Your task to perform on an android device: add a contact Image 0: 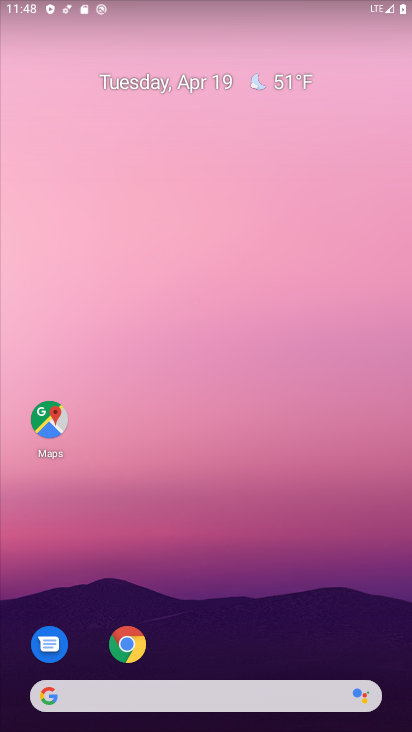
Step 0: drag from (210, 728) to (191, 152)
Your task to perform on an android device: add a contact Image 1: 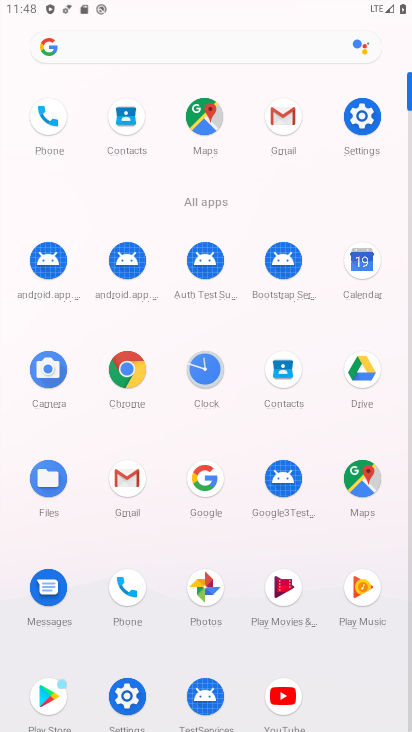
Step 1: click (284, 369)
Your task to perform on an android device: add a contact Image 2: 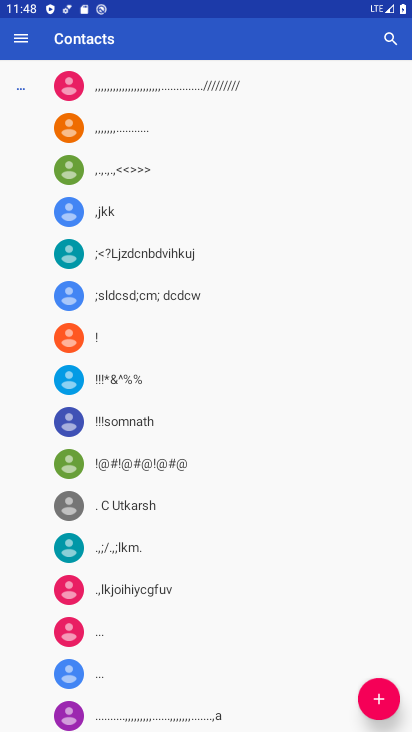
Step 2: click (379, 697)
Your task to perform on an android device: add a contact Image 3: 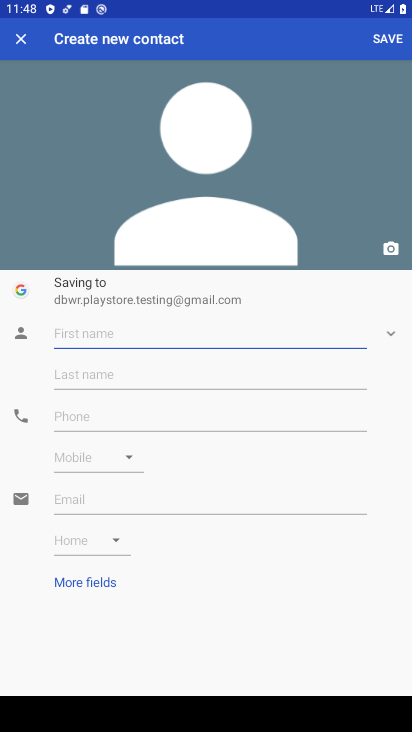
Step 3: type "emburaan"
Your task to perform on an android device: add a contact Image 4: 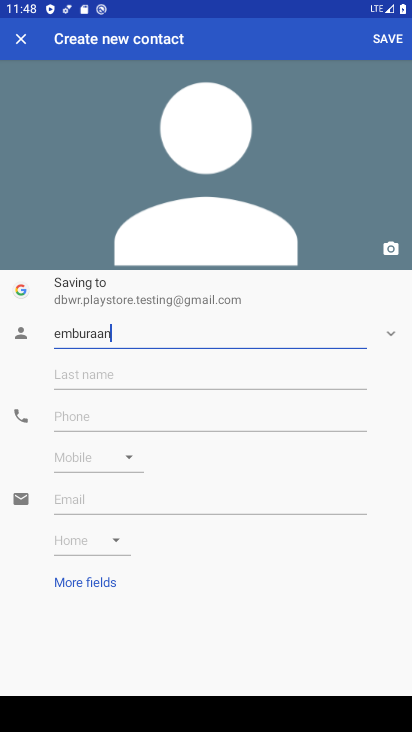
Step 4: click (100, 412)
Your task to perform on an android device: add a contact Image 5: 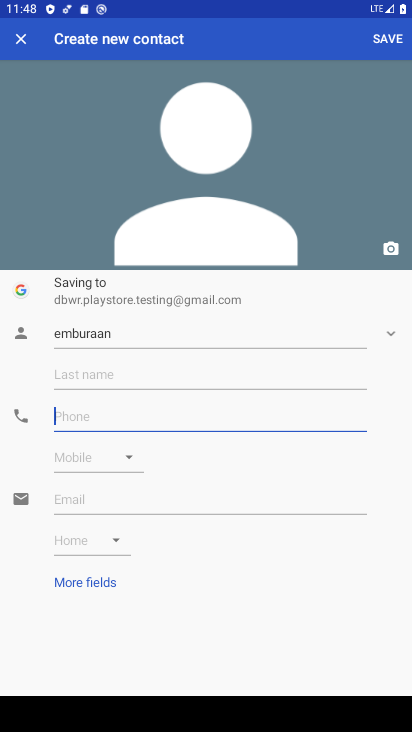
Step 5: type "9876543"
Your task to perform on an android device: add a contact Image 6: 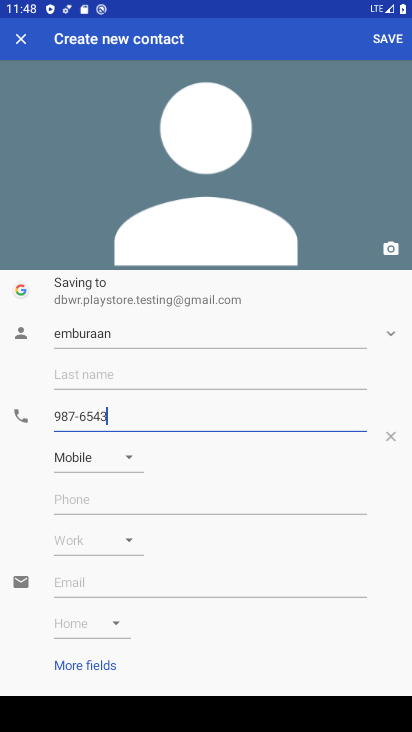
Step 6: click (390, 41)
Your task to perform on an android device: add a contact Image 7: 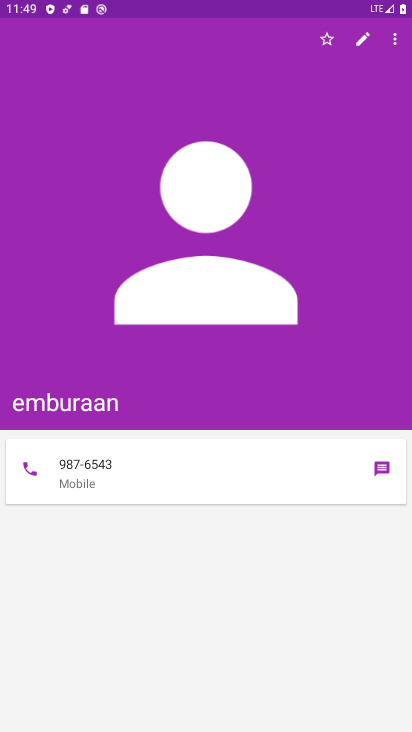
Step 7: task complete